Your task to perform on an android device: Open the calendar and show me this week's events? Image 0: 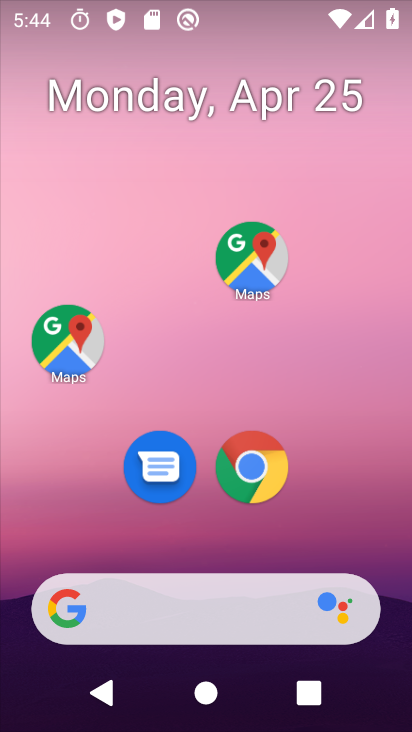
Step 0: drag from (268, 568) to (283, 33)
Your task to perform on an android device: Open the calendar and show me this week's events? Image 1: 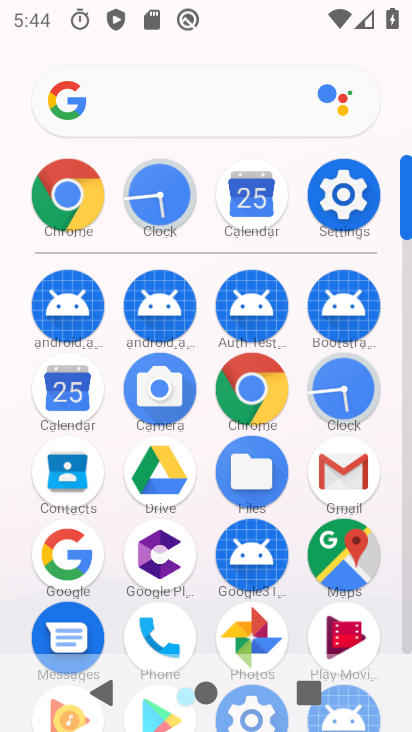
Step 1: click (66, 401)
Your task to perform on an android device: Open the calendar and show me this week's events? Image 2: 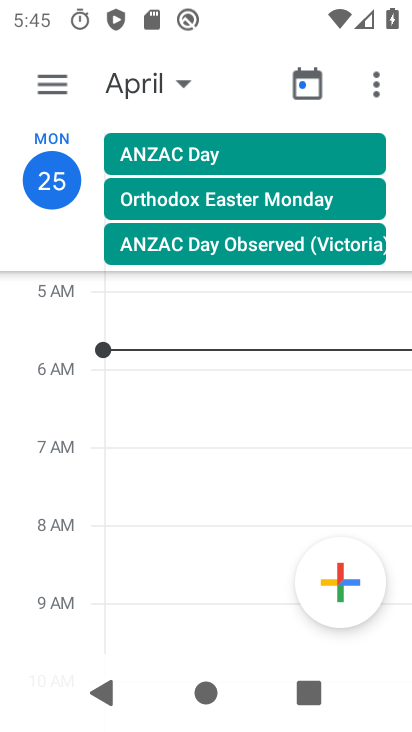
Step 2: click (184, 80)
Your task to perform on an android device: Open the calendar and show me this week's events? Image 3: 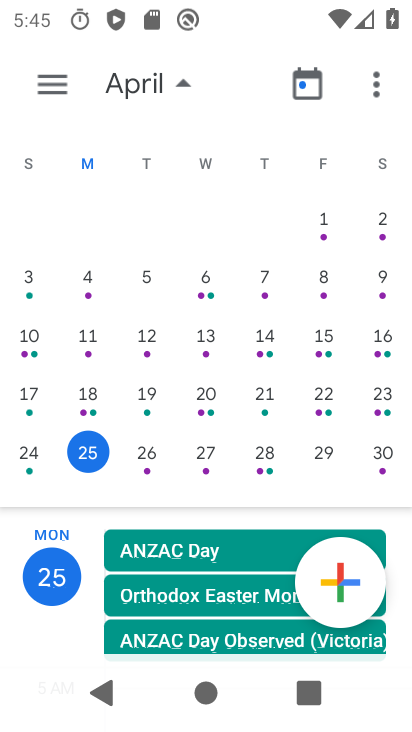
Step 3: click (40, 77)
Your task to perform on an android device: Open the calendar and show me this week's events? Image 4: 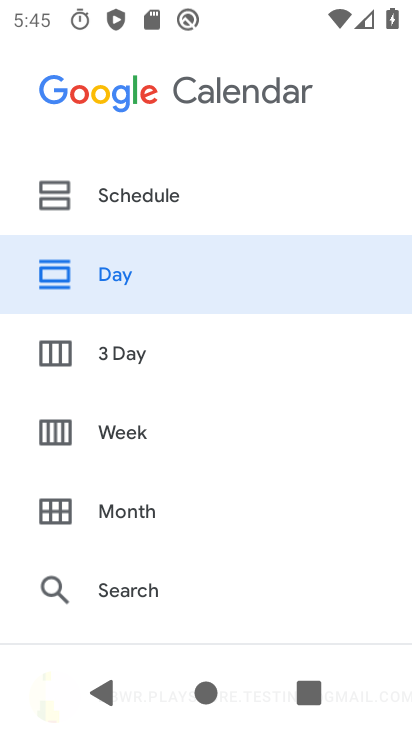
Step 4: click (152, 429)
Your task to perform on an android device: Open the calendar and show me this week's events? Image 5: 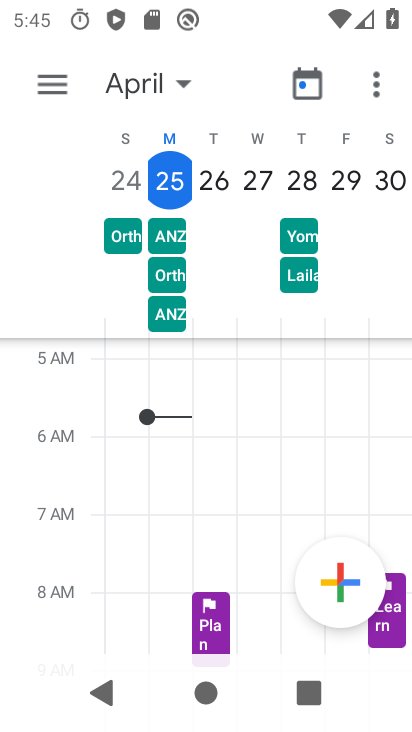
Step 5: task complete